Your task to perform on an android device: Clear the cart on amazon.com. Add macbook pro 15 inch to the cart on amazon.com, then select checkout. Image 0: 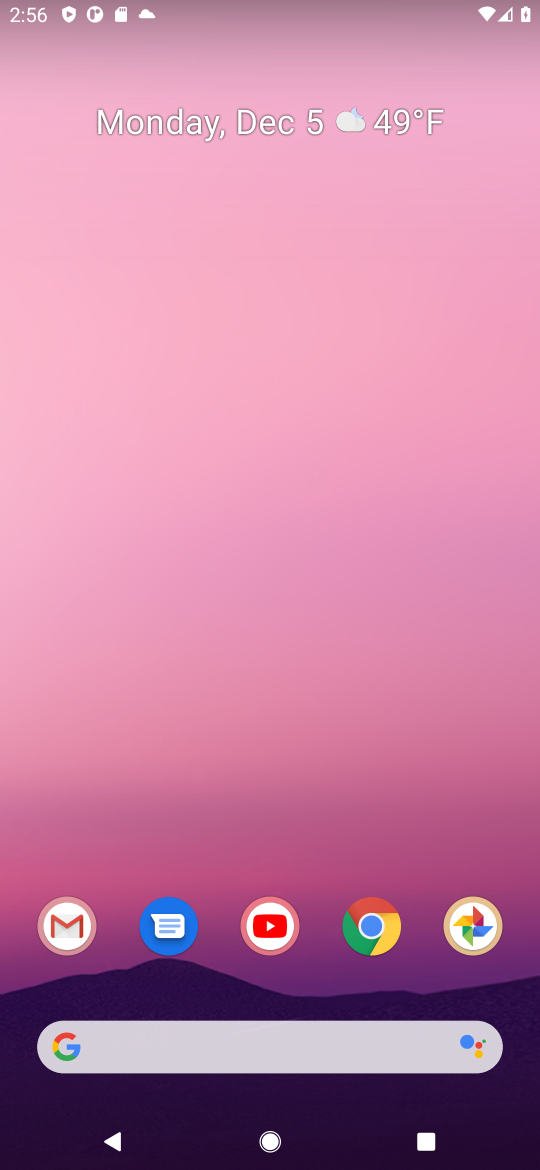
Step 0: click (374, 917)
Your task to perform on an android device: Clear the cart on amazon.com. Add macbook pro 15 inch to the cart on amazon.com, then select checkout. Image 1: 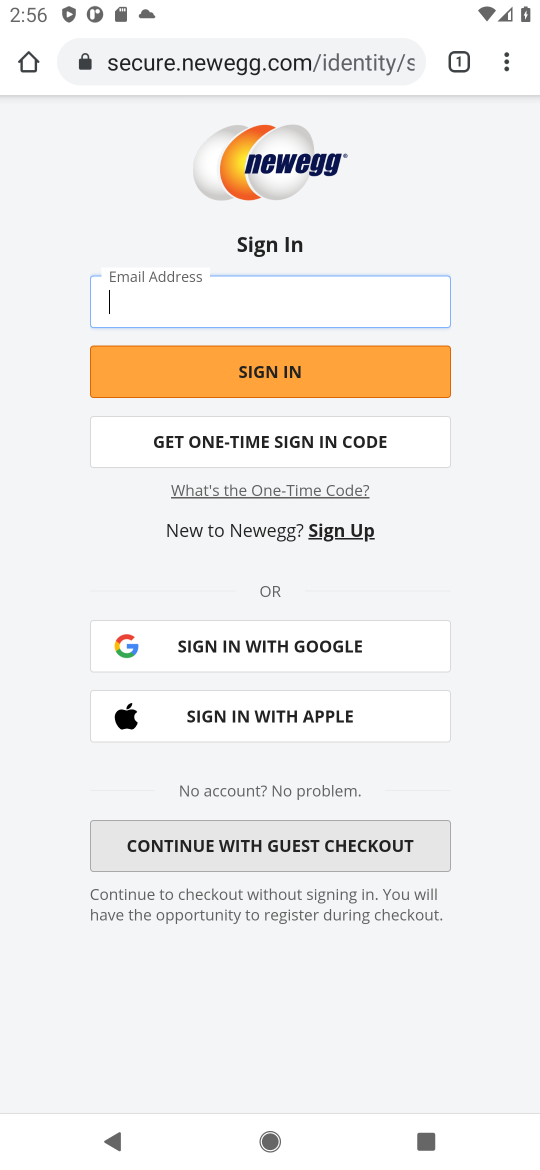
Step 1: click (298, 68)
Your task to perform on an android device: Clear the cart on amazon.com. Add macbook pro 15 inch to the cart on amazon.com, then select checkout. Image 2: 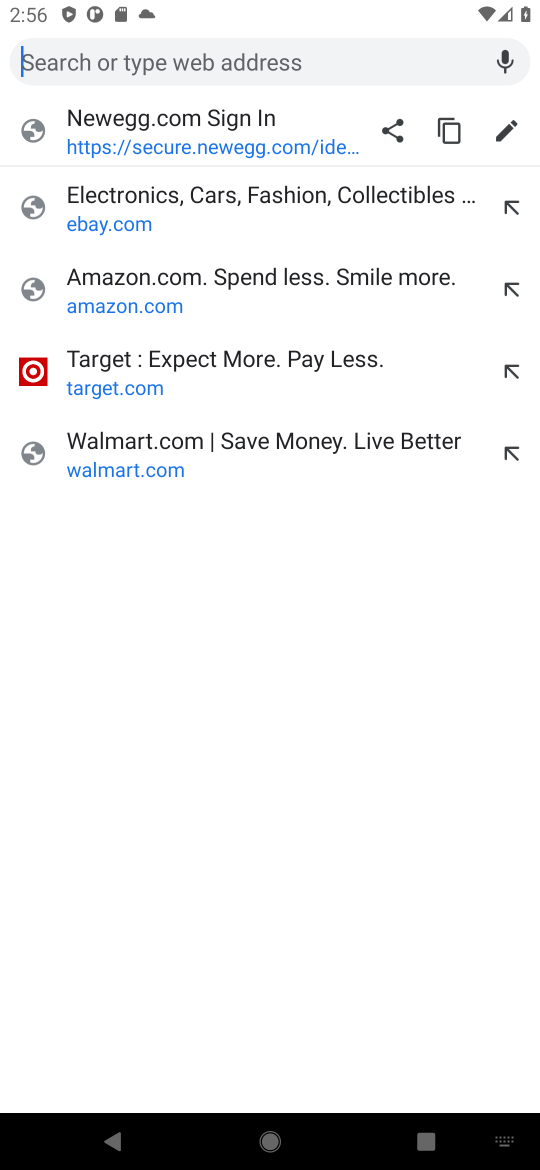
Step 2: click (204, 269)
Your task to perform on an android device: Clear the cart on amazon.com. Add macbook pro 15 inch to the cart on amazon.com, then select checkout. Image 3: 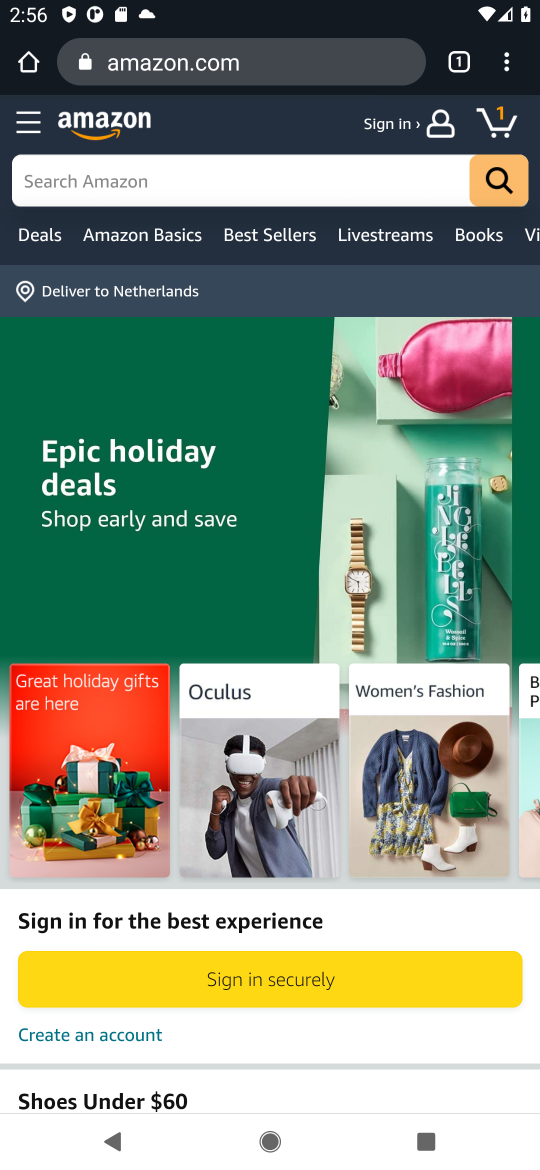
Step 3: click (506, 122)
Your task to perform on an android device: Clear the cart on amazon.com. Add macbook pro 15 inch to the cart on amazon.com, then select checkout. Image 4: 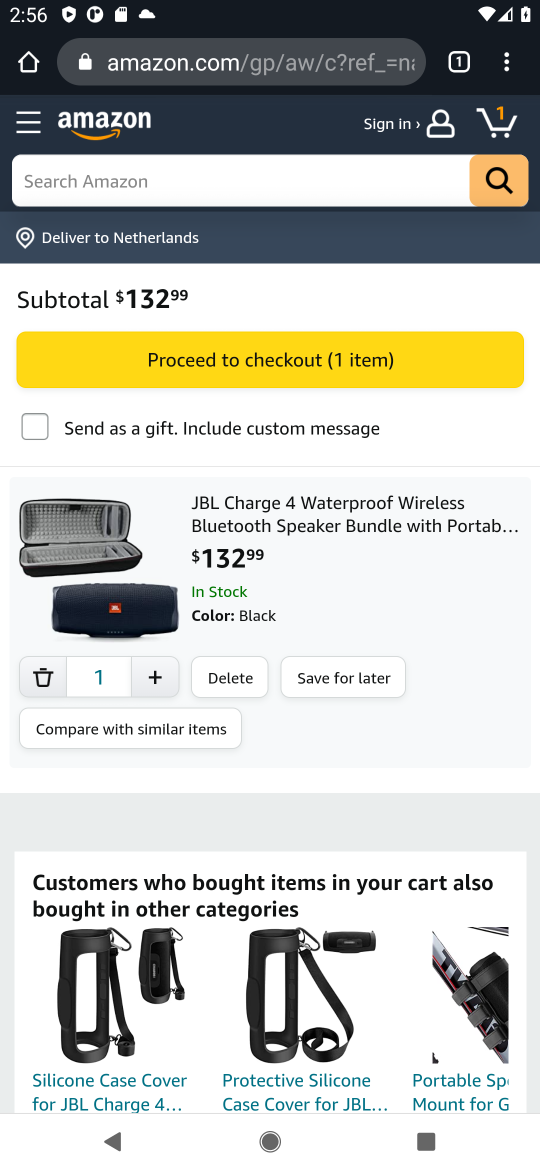
Step 4: click (222, 681)
Your task to perform on an android device: Clear the cart on amazon.com. Add macbook pro 15 inch to the cart on amazon.com, then select checkout. Image 5: 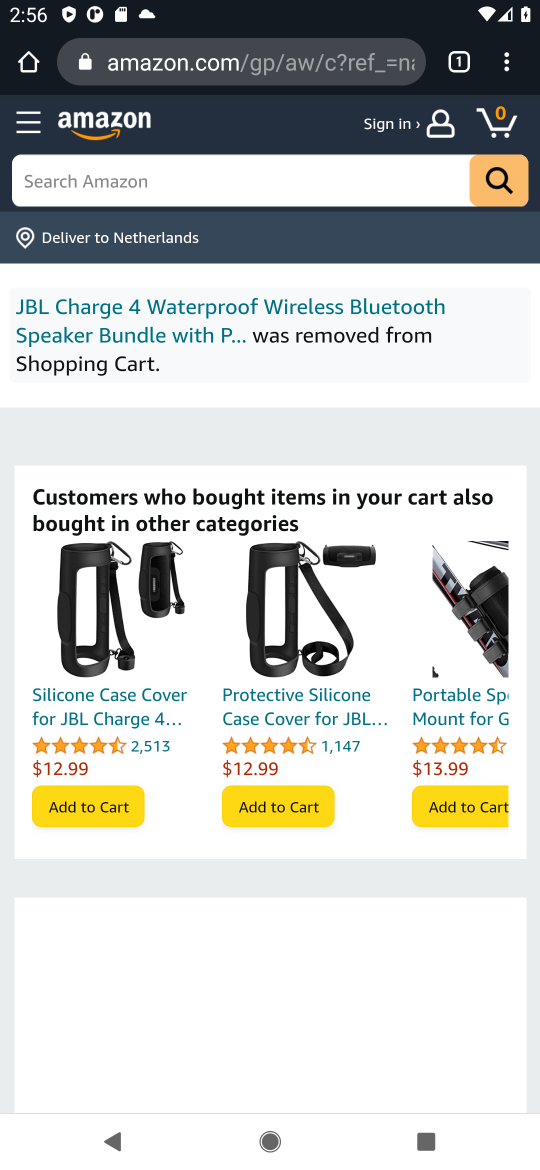
Step 5: click (341, 180)
Your task to perform on an android device: Clear the cart on amazon.com. Add macbook pro 15 inch to the cart on amazon.com, then select checkout. Image 6: 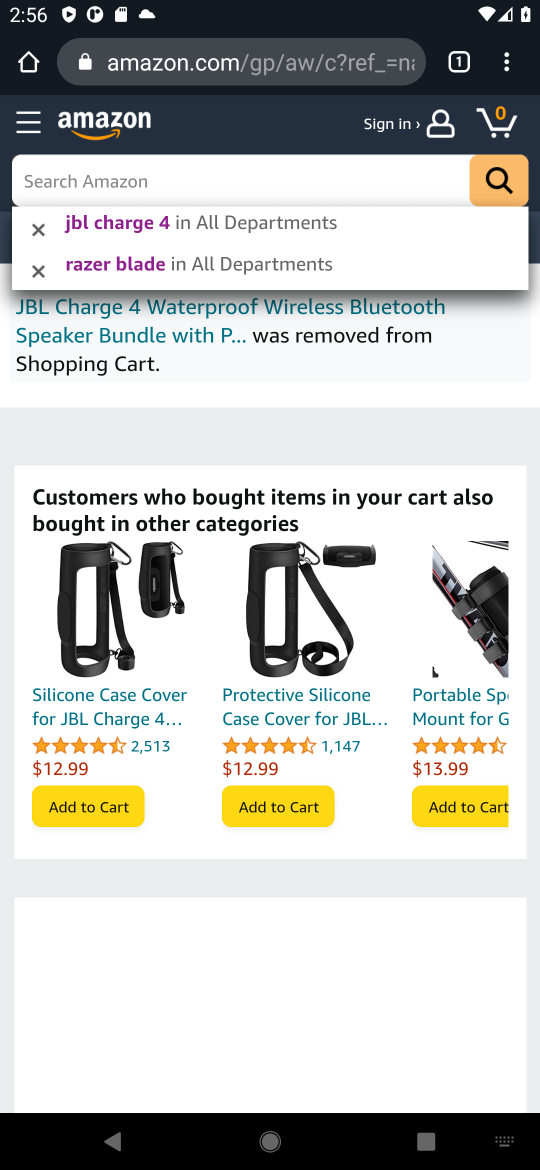
Step 6: type "macbook pro 15 inch"
Your task to perform on an android device: Clear the cart on amazon.com. Add macbook pro 15 inch to the cart on amazon.com, then select checkout. Image 7: 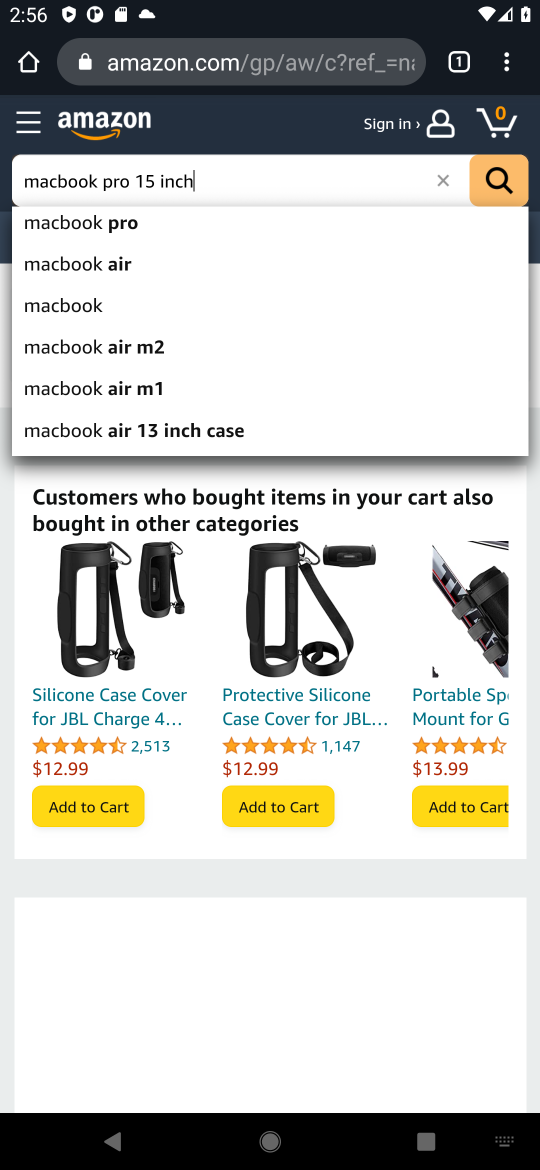
Step 7: press enter
Your task to perform on an android device: Clear the cart on amazon.com. Add macbook pro 15 inch to the cart on amazon.com, then select checkout. Image 8: 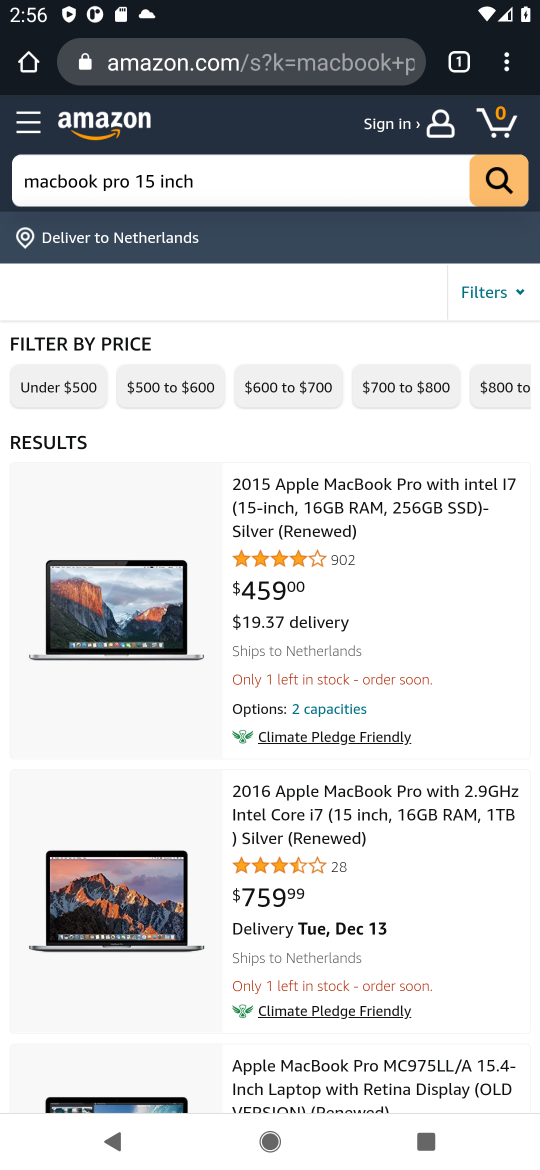
Step 8: drag from (474, 1008) to (474, 313)
Your task to perform on an android device: Clear the cart on amazon.com. Add macbook pro 15 inch to the cart on amazon.com, then select checkout. Image 9: 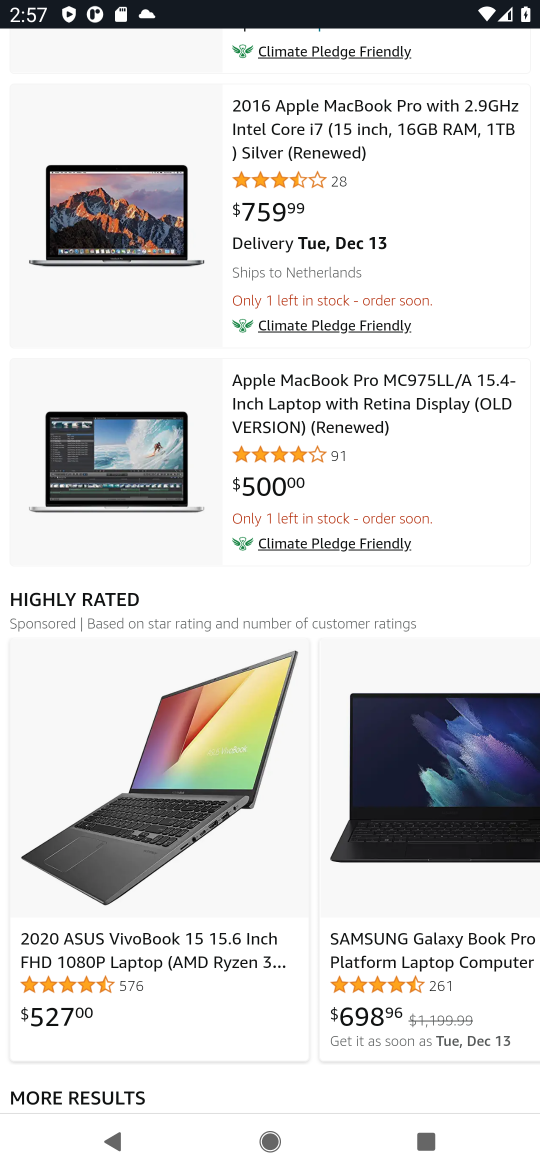
Step 9: drag from (402, 869) to (374, 435)
Your task to perform on an android device: Clear the cart on amazon.com. Add macbook pro 15 inch to the cart on amazon.com, then select checkout. Image 10: 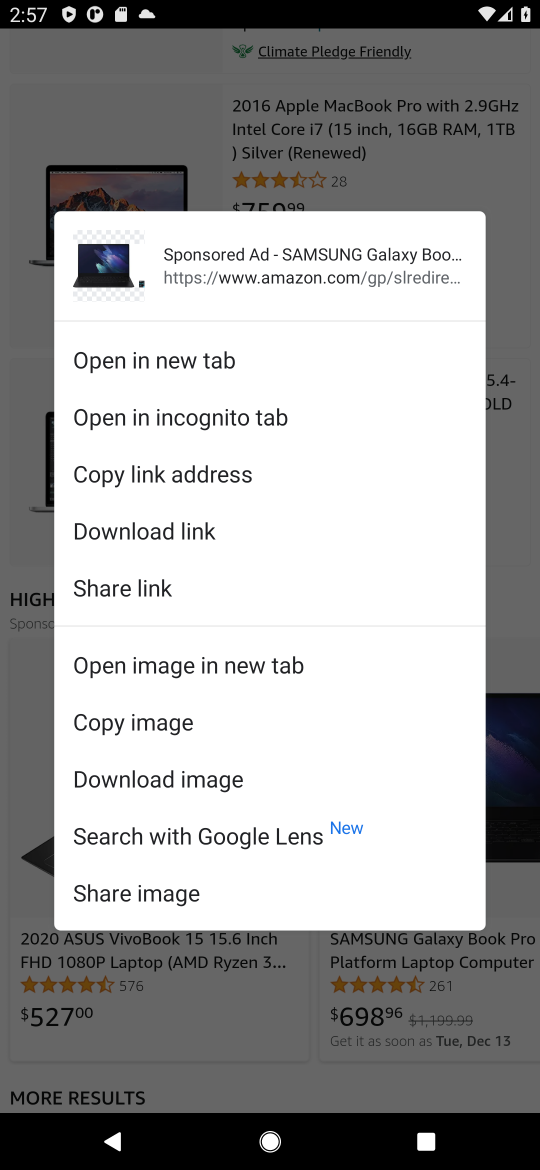
Step 10: click (300, 988)
Your task to perform on an android device: Clear the cart on amazon.com. Add macbook pro 15 inch to the cart on amazon.com, then select checkout. Image 11: 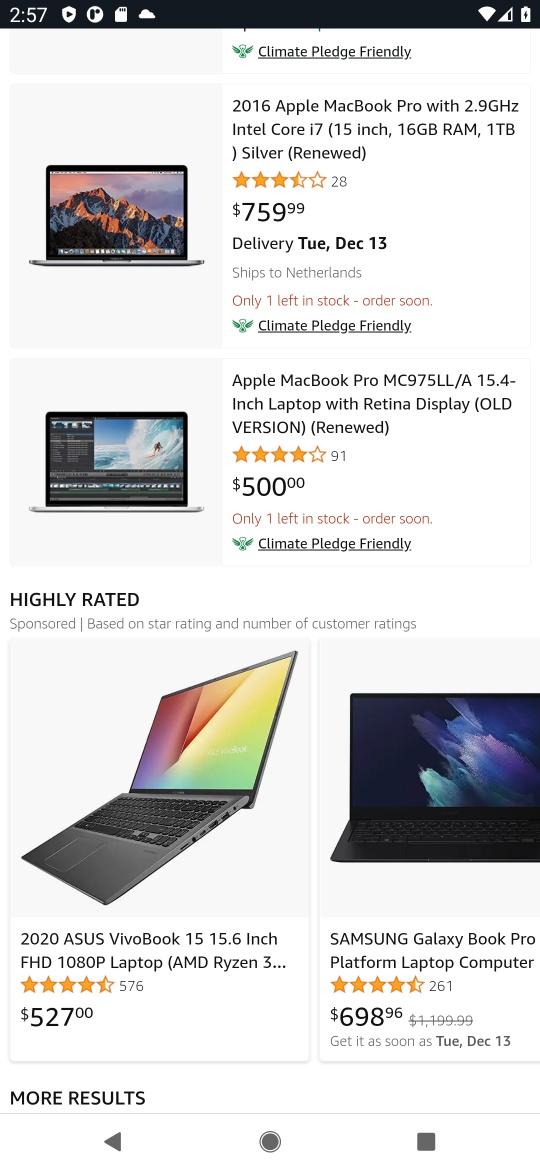
Step 11: drag from (318, 920) to (265, 445)
Your task to perform on an android device: Clear the cart on amazon.com. Add macbook pro 15 inch to the cart on amazon.com, then select checkout. Image 12: 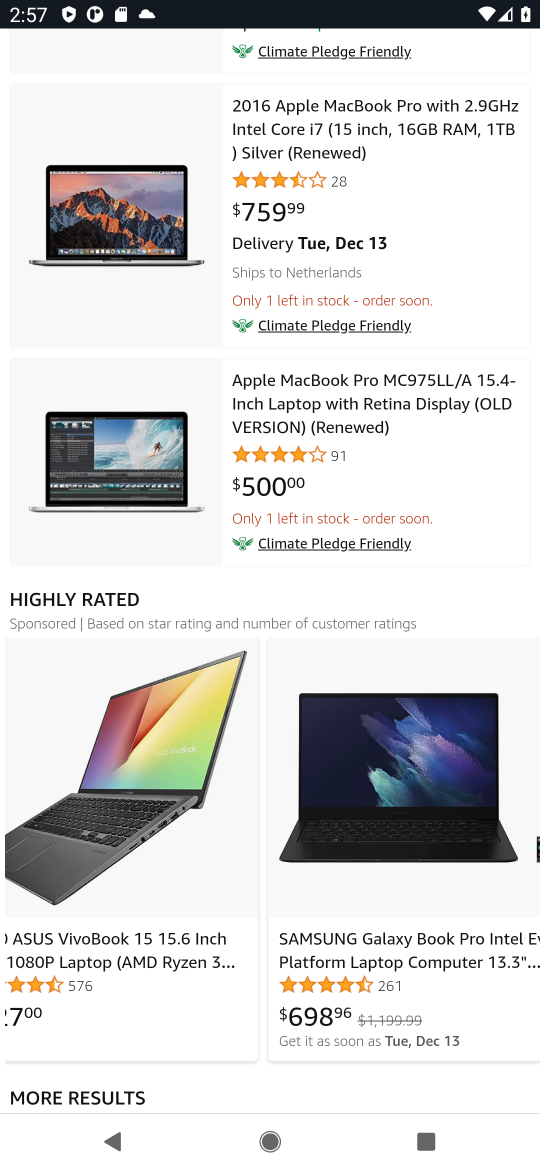
Step 12: drag from (230, 752) to (336, 457)
Your task to perform on an android device: Clear the cart on amazon.com. Add macbook pro 15 inch to the cart on amazon.com, then select checkout. Image 13: 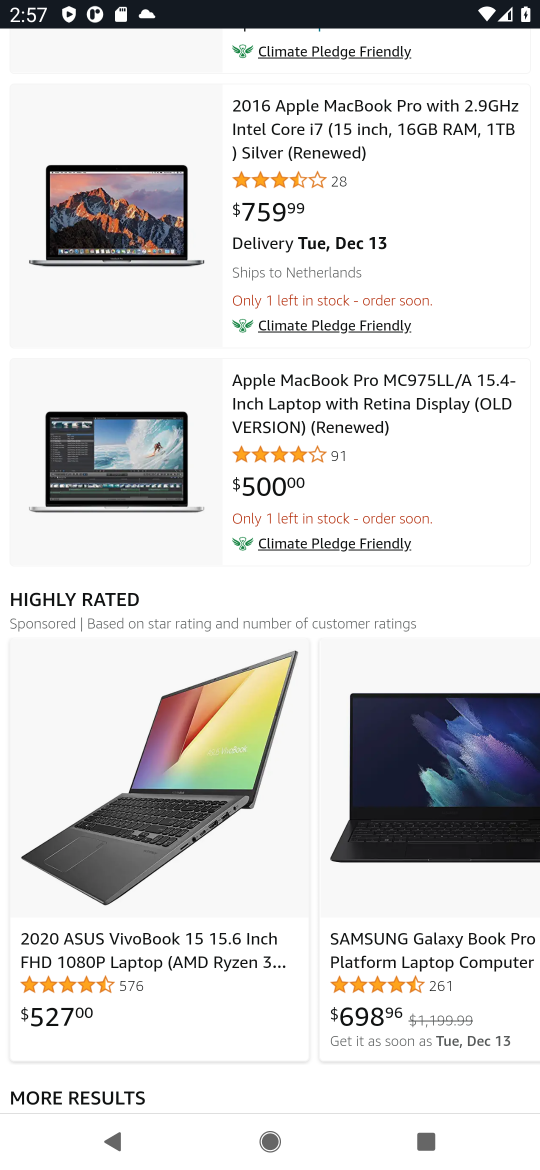
Step 13: drag from (332, 546) to (350, 892)
Your task to perform on an android device: Clear the cart on amazon.com. Add macbook pro 15 inch to the cart on amazon.com, then select checkout. Image 14: 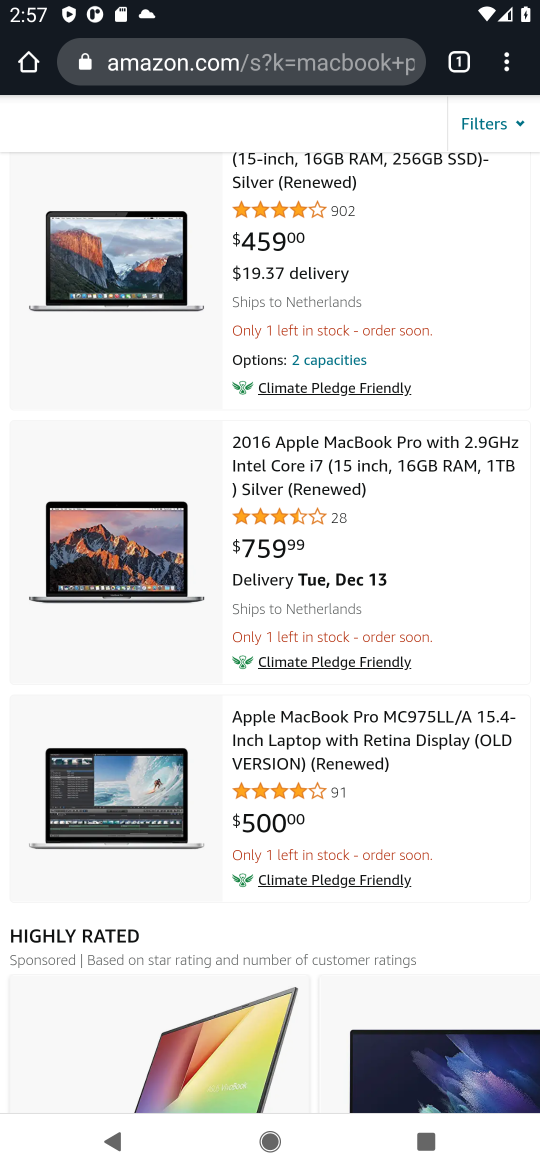
Step 14: drag from (438, 566) to (460, 783)
Your task to perform on an android device: Clear the cart on amazon.com. Add macbook pro 15 inch to the cart on amazon.com, then select checkout. Image 15: 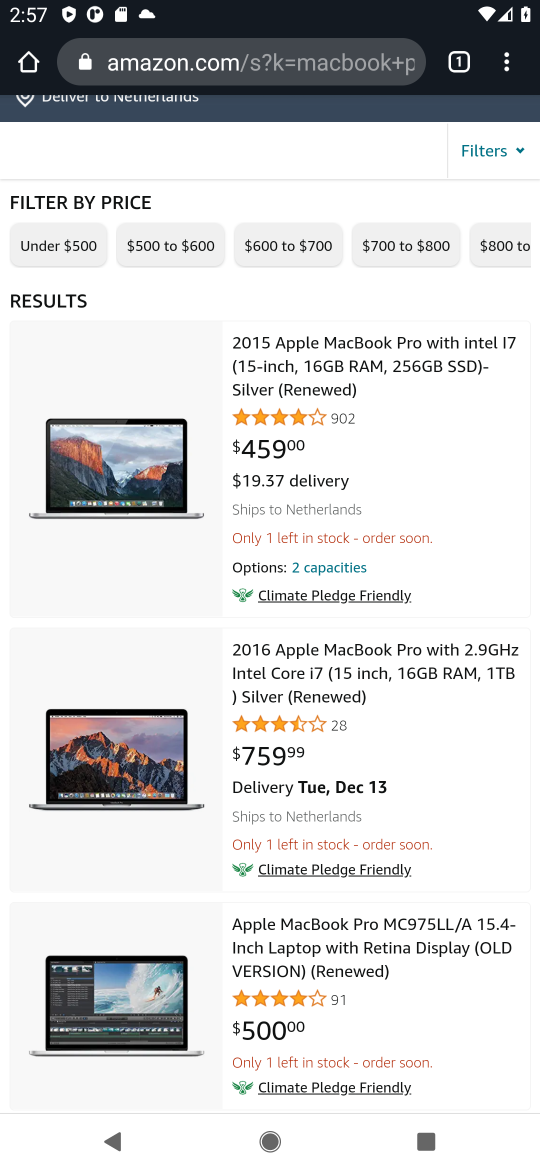
Step 15: drag from (437, 508) to (485, 829)
Your task to perform on an android device: Clear the cart on amazon.com. Add macbook pro 15 inch to the cart on amazon.com, then select checkout. Image 16: 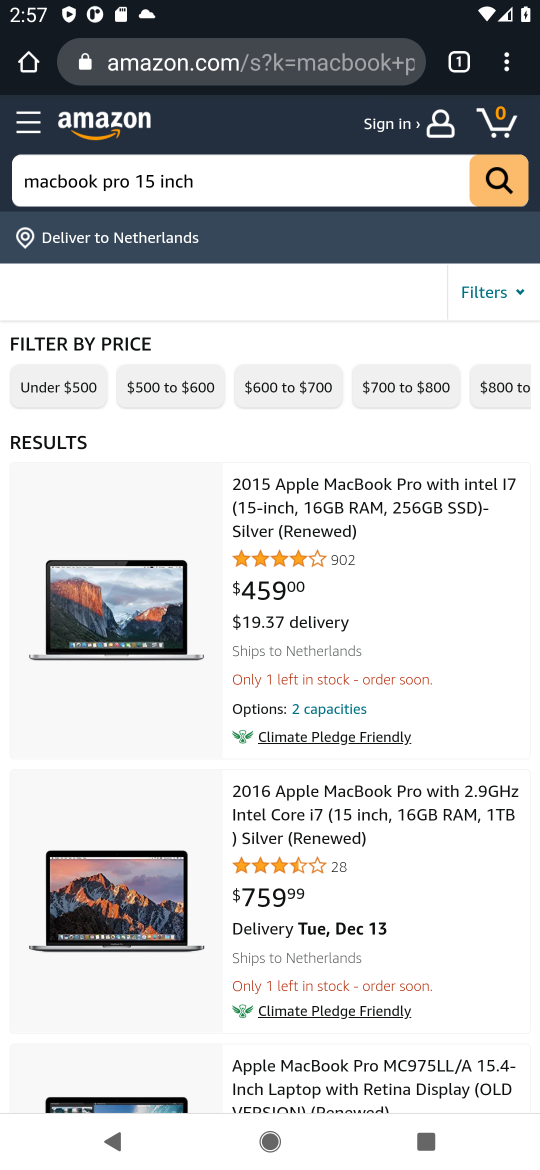
Step 16: drag from (420, 877) to (374, 288)
Your task to perform on an android device: Clear the cart on amazon.com. Add macbook pro 15 inch to the cart on amazon.com, then select checkout. Image 17: 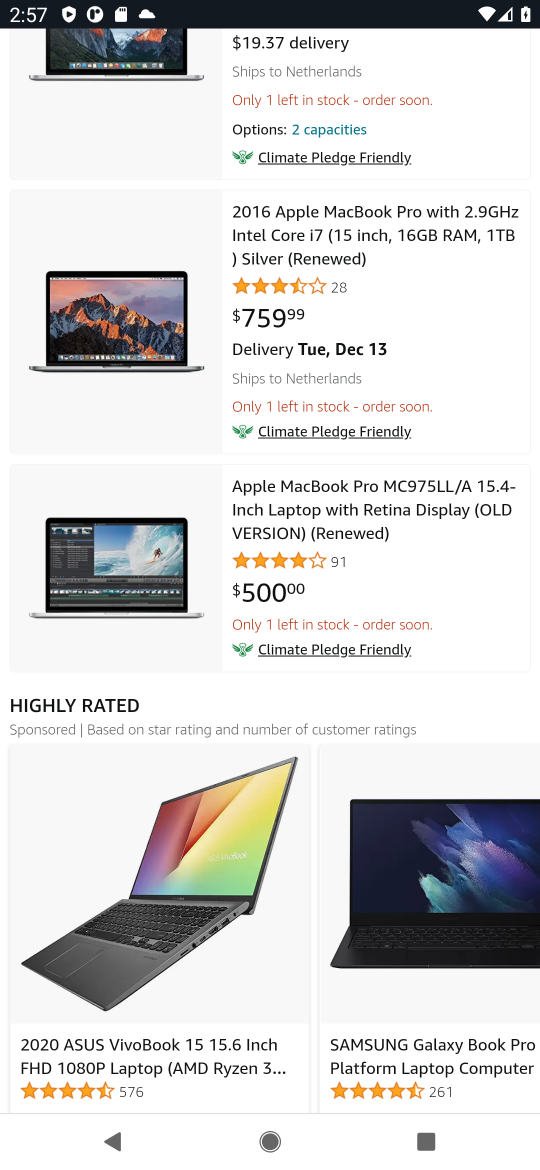
Step 17: drag from (431, 576) to (491, 63)
Your task to perform on an android device: Clear the cart on amazon.com. Add macbook pro 15 inch to the cart on amazon.com, then select checkout. Image 18: 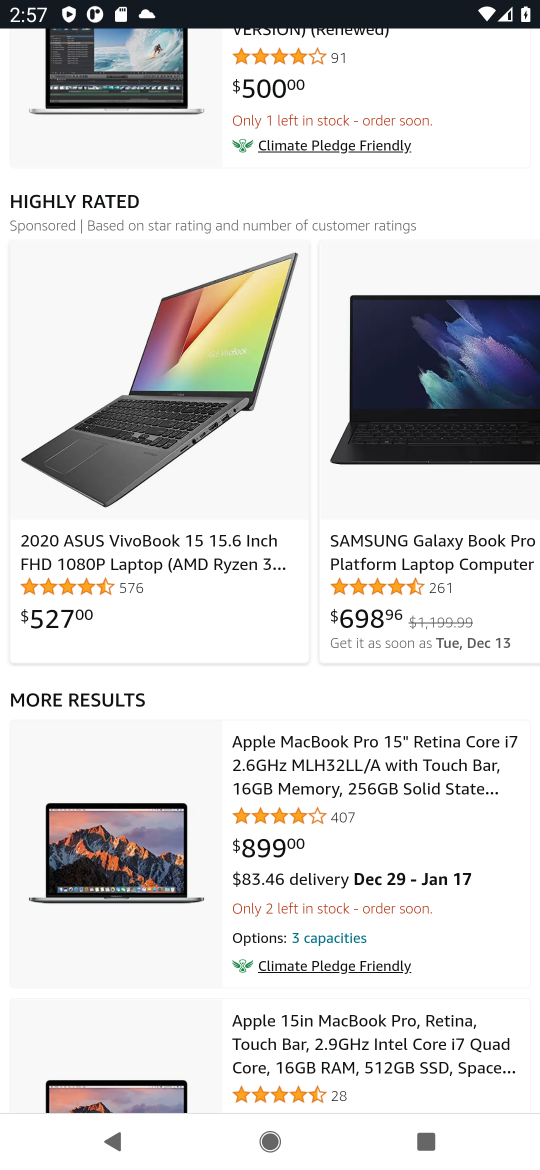
Step 18: click (135, 856)
Your task to perform on an android device: Clear the cart on amazon.com. Add macbook pro 15 inch to the cart on amazon.com, then select checkout. Image 19: 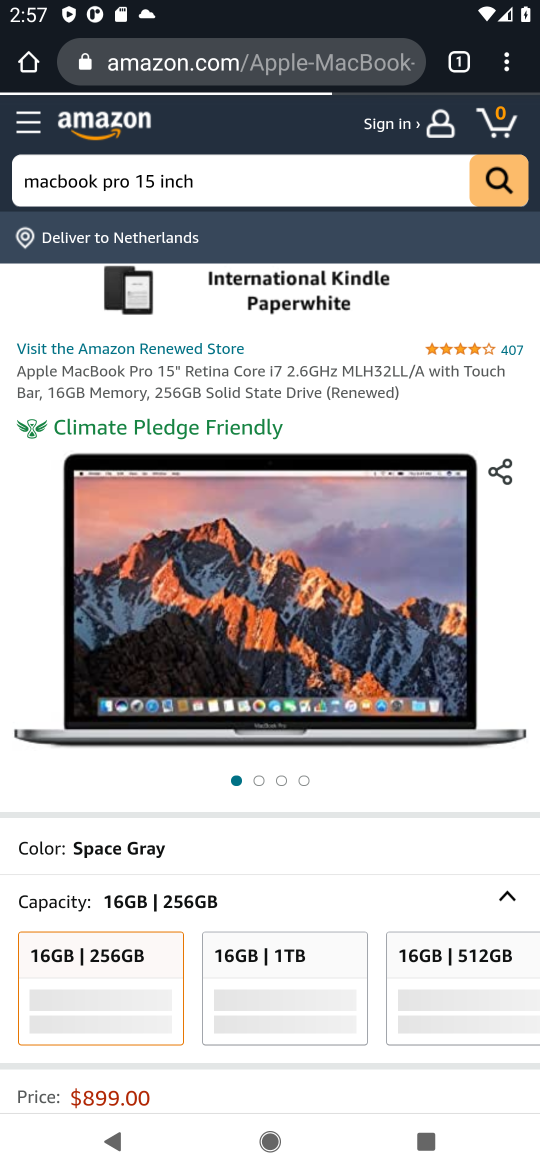
Step 19: drag from (427, 858) to (491, 192)
Your task to perform on an android device: Clear the cart on amazon.com. Add macbook pro 15 inch to the cart on amazon.com, then select checkout. Image 20: 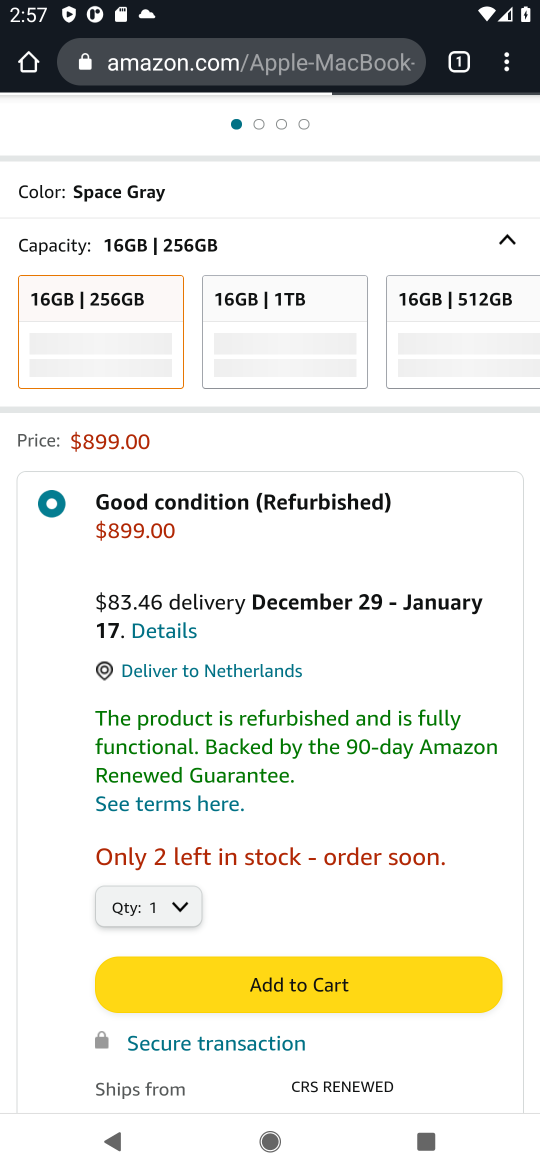
Step 20: click (339, 981)
Your task to perform on an android device: Clear the cart on amazon.com. Add macbook pro 15 inch to the cart on amazon.com, then select checkout. Image 21: 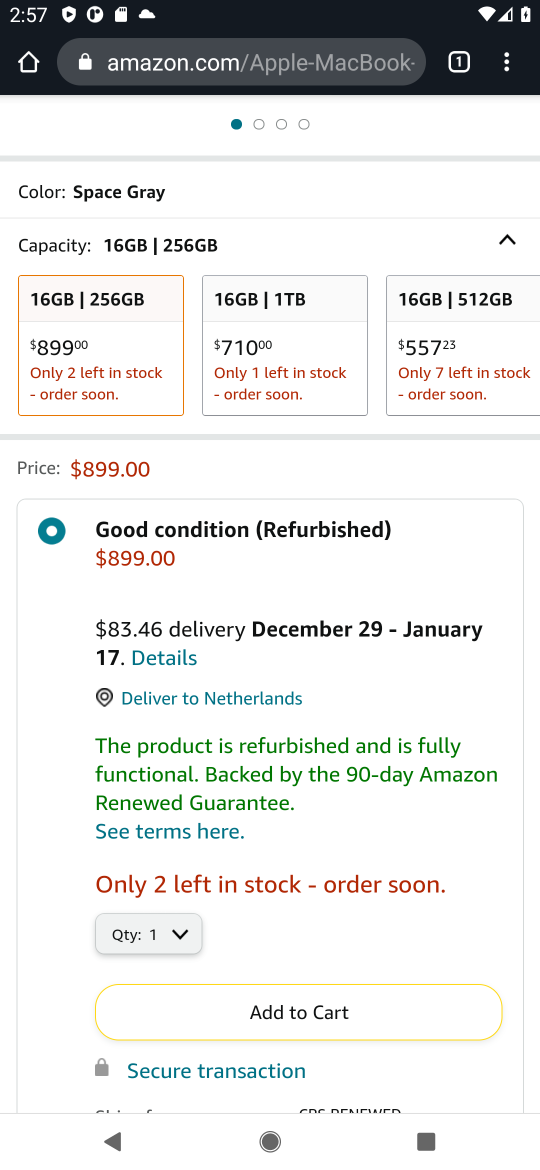
Step 21: click (317, 1012)
Your task to perform on an android device: Clear the cart on amazon.com. Add macbook pro 15 inch to the cart on amazon.com, then select checkout. Image 22: 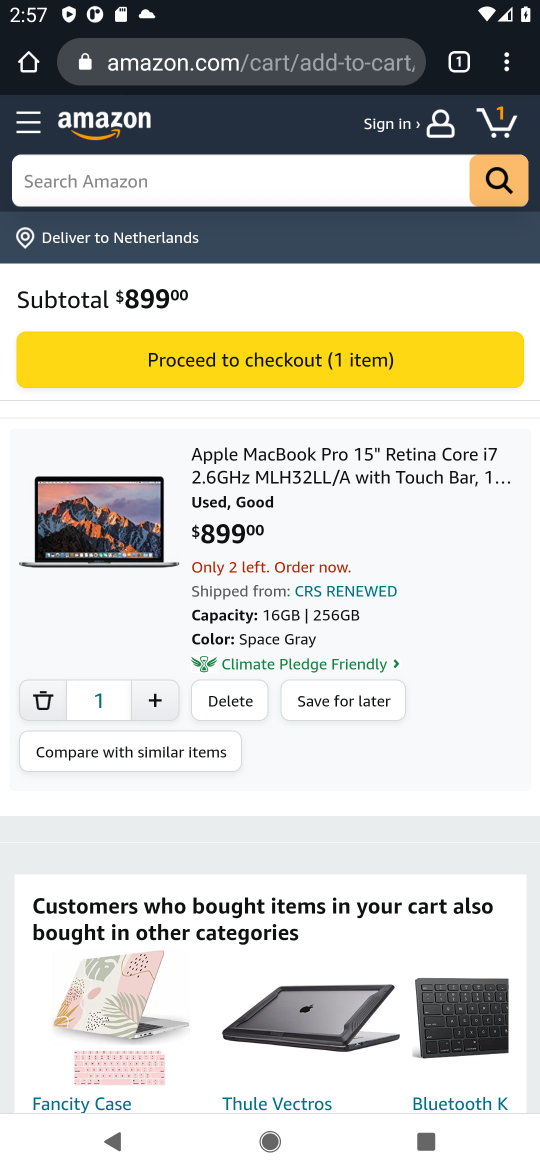
Step 22: click (284, 350)
Your task to perform on an android device: Clear the cart on amazon.com. Add macbook pro 15 inch to the cart on amazon.com, then select checkout. Image 23: 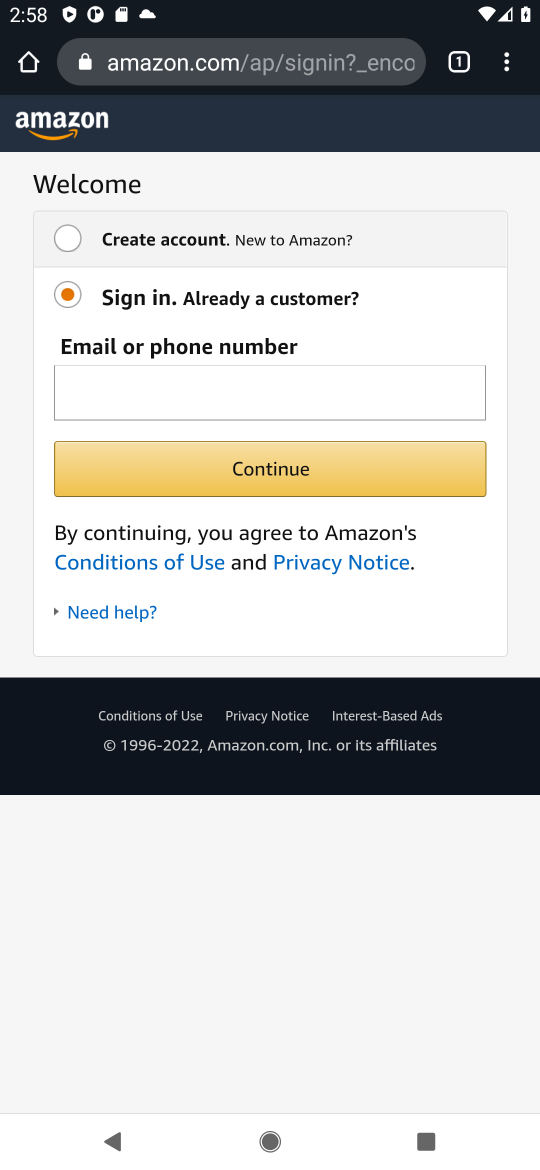
Step 23: task complete